Your task to perform on an android device: turn on the 24-hour format for clock Image 0: 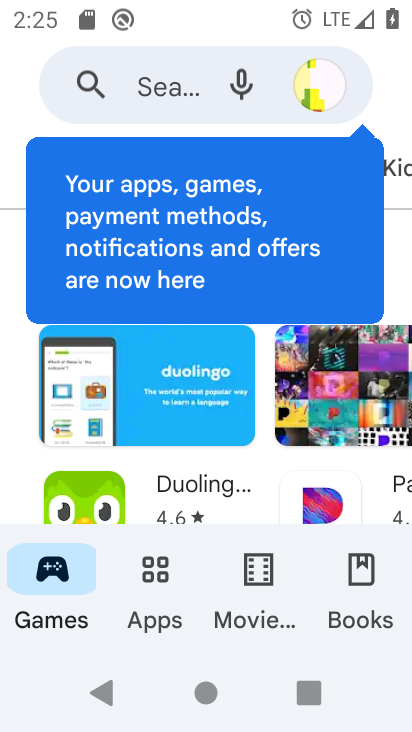
Step 0: press home button
Your task to perform on an android device: turn on the 24-hour format for clock Image 1: 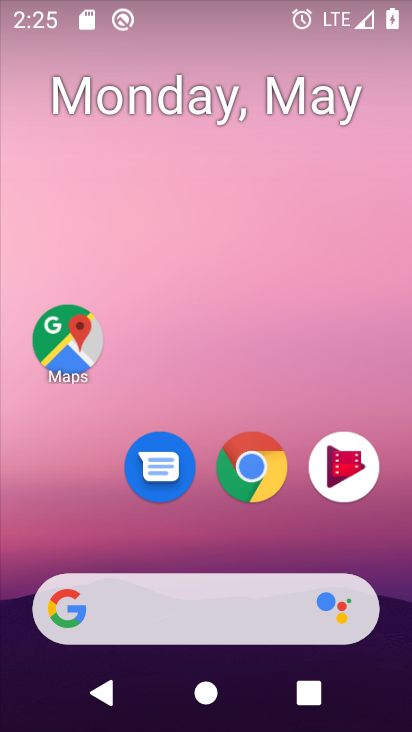
Step 1: drag from (236, 481) to (291, 203)
Your task to perform on an android device: turn on the 24-hour format for clock Image 2: 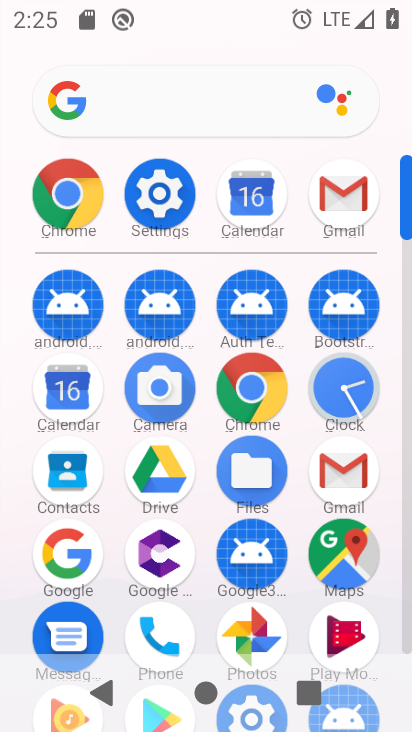
Step 2: click (334, 365)
Your task to perform on an android device: turn on the 24-hour format for clock Image 3: 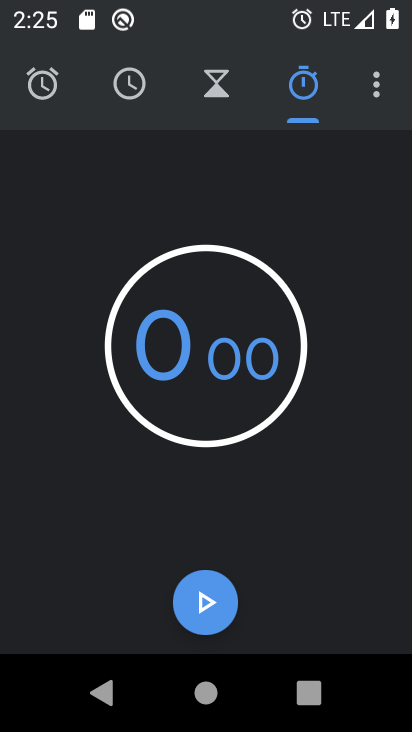
Step 3: click (363, 85)
Your task to perform on an android device: turn on the 24-hour format for clock Image 4: 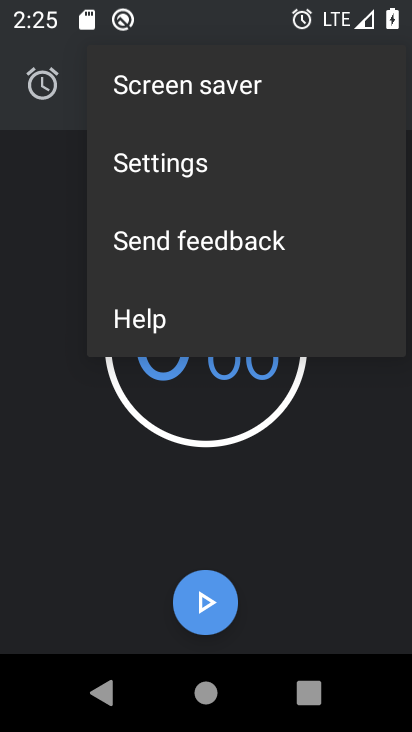
Step 4: click (230, 174)
Your task to perform on an android device: turn on the 24-hour format for clock Image 5: 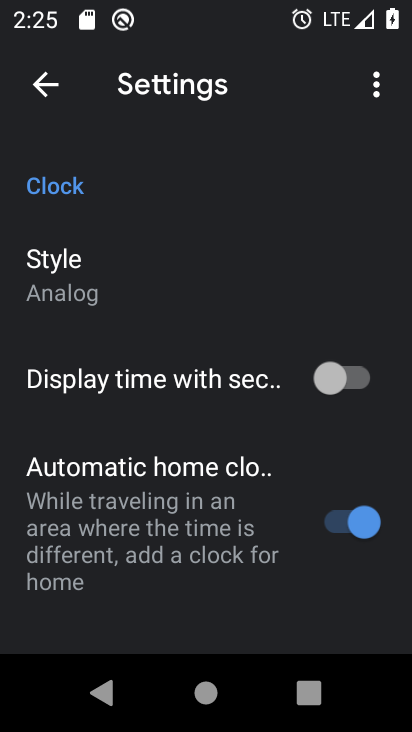
Step 5: drag from (190, 529) to (269, 267)
Your task to perform on an android device: turn on the 24-hour format for clock Image 6: 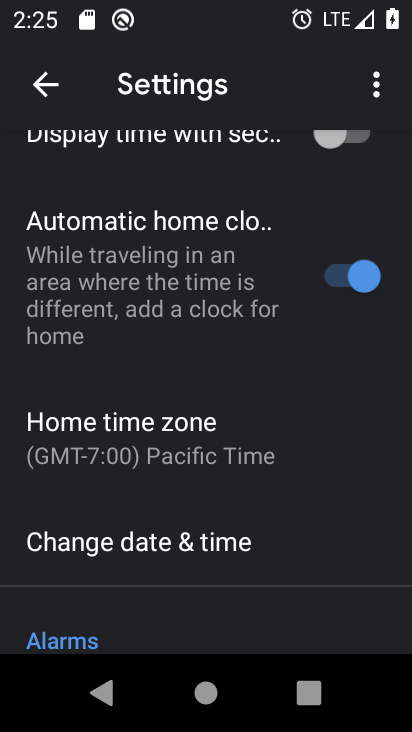
Step 6: click (159, 539)
Your task to perform on an android device: turn on the 24-hour format for clock Image 7: 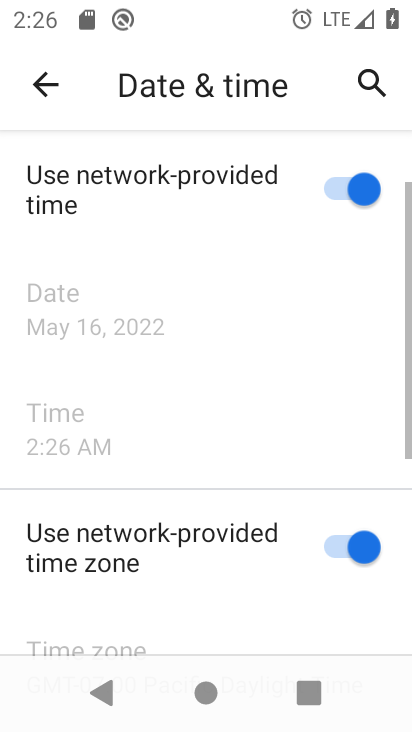
Step 7: drag from (183, 562) to (294, 250)
Your task to perform on an android device: turn on the 24-hour format for clock Image 8: 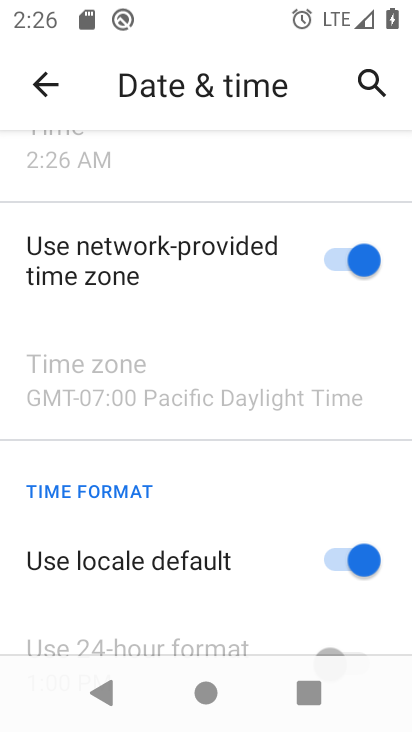
Step 8: drag from (300, 537) to (313, 357)
Your task to perform on an android device: turn on the 24-hour format for clock Image 9: 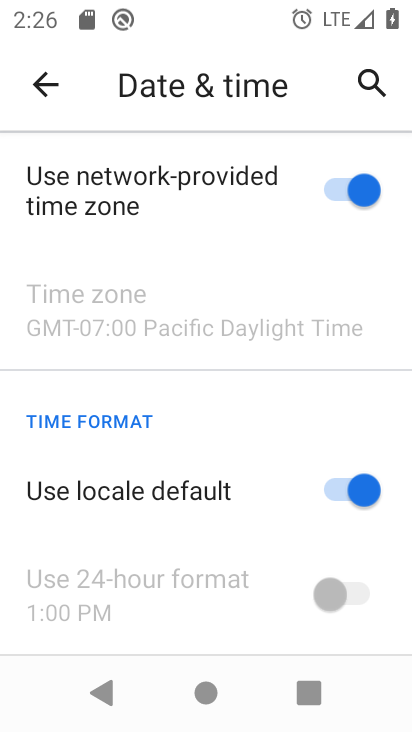
Step 9: click (328, 475)
Your task to perform on an android device: turn on the 24-hour format for clock Image 10: 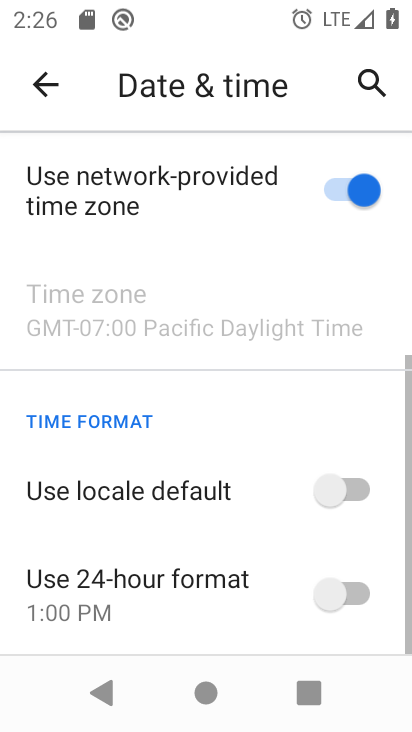
Step 10: click (344, 592)
Your task to perform on an android device: turn on the 24-hour format for clock Image 11: 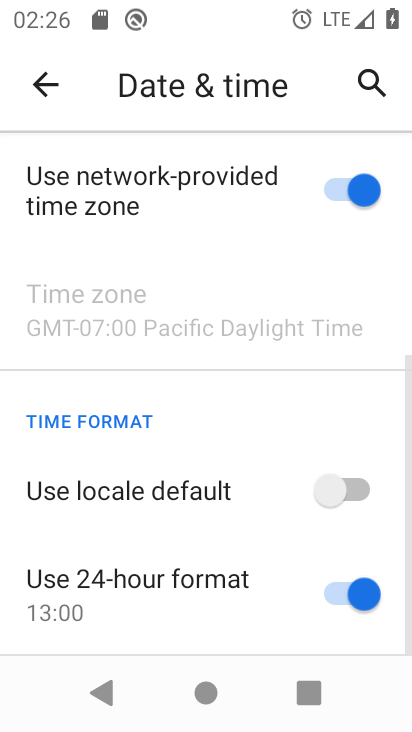
Step 11: task complete